Your task to perform on an android device: empty trash in google photos Image 0: 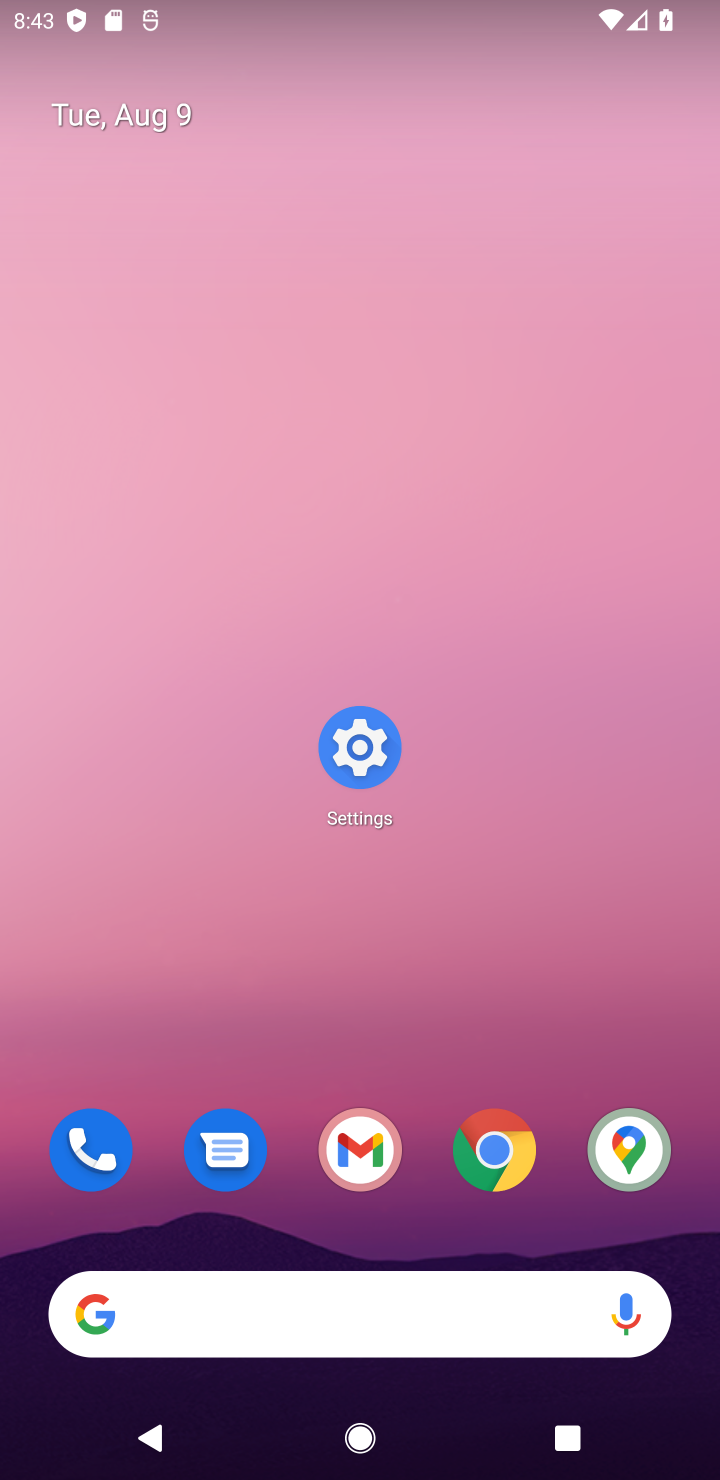
Step 0: press home button
Your task to perform on an android device: empty trash in google photos Image 1: 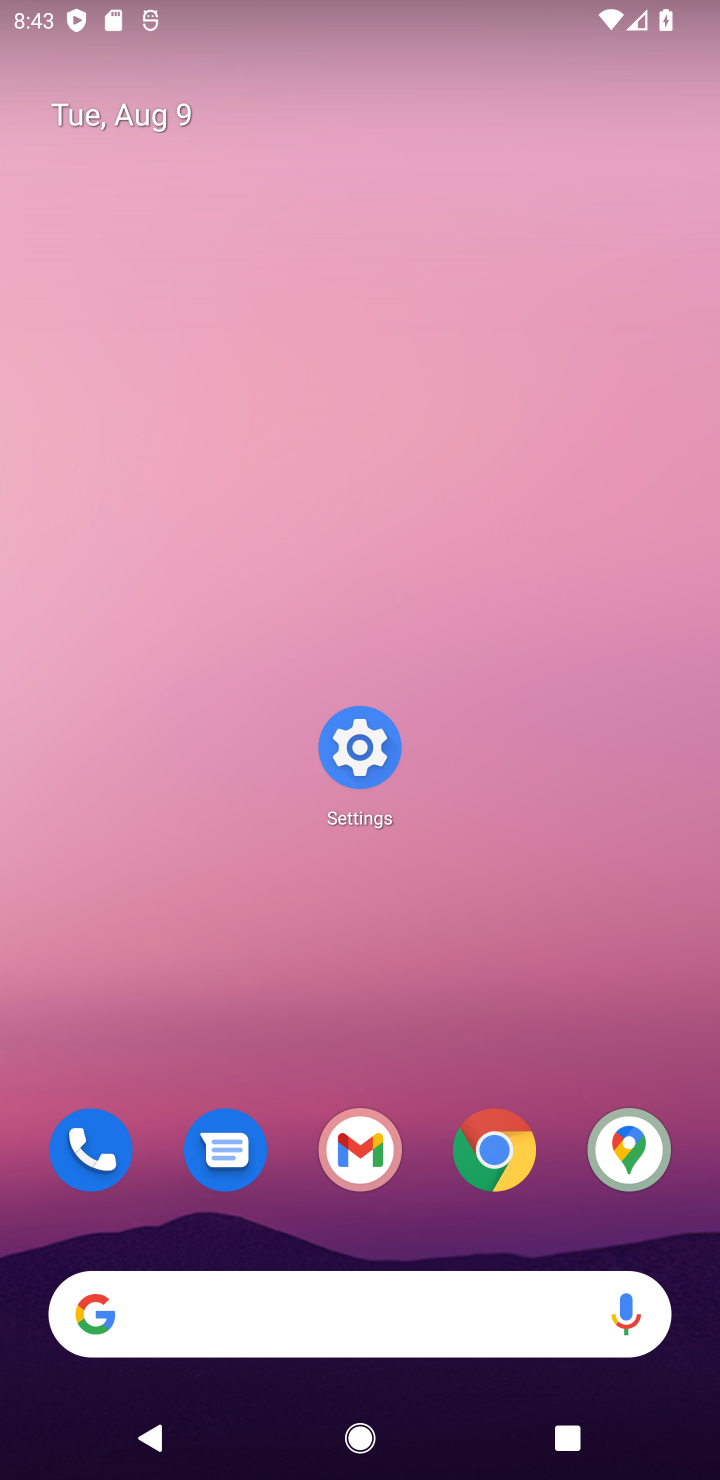
Step 1: drag from (428, 1144) to (596, 206)
Your task to perform on an android device: empty trash in google photos Image 2: 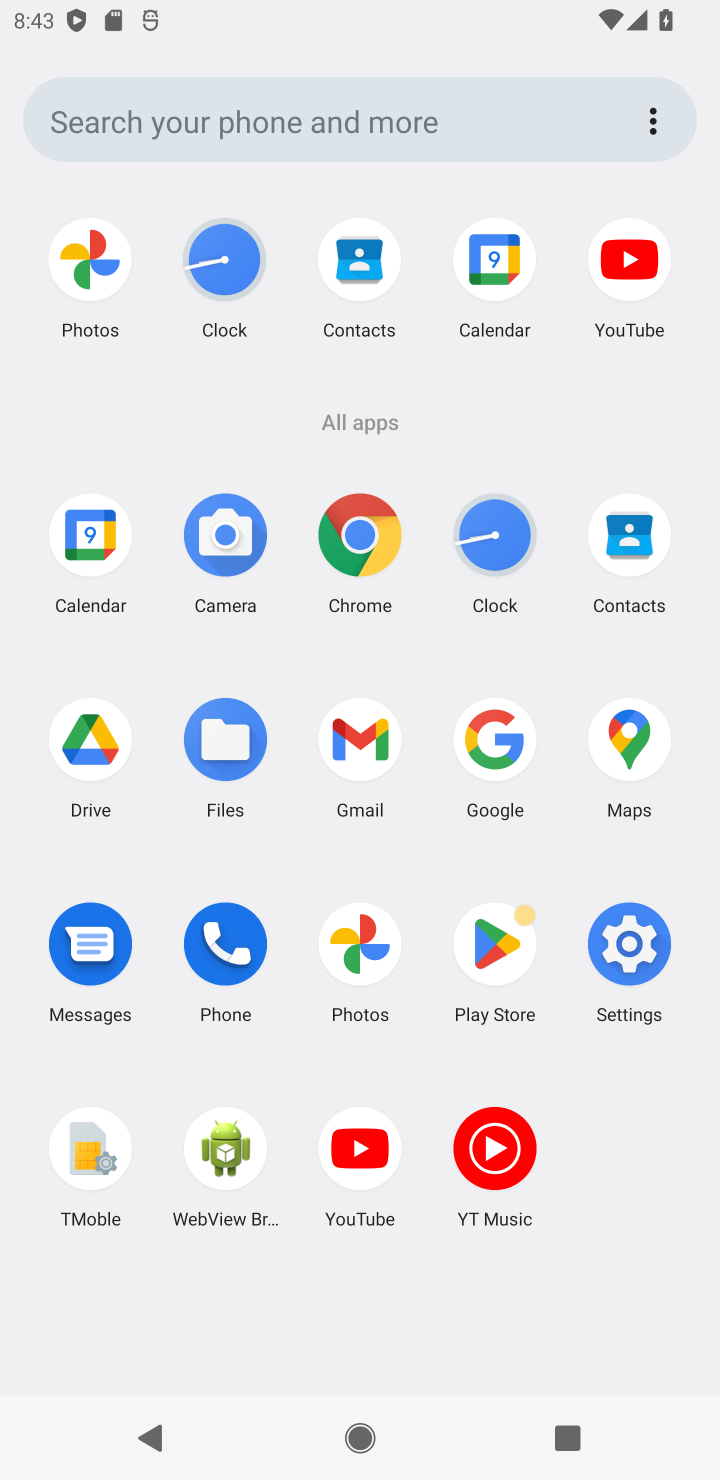
Step 2: click (354, 950)
Your task to perform on an android device: empty trash in google photos Image 3: 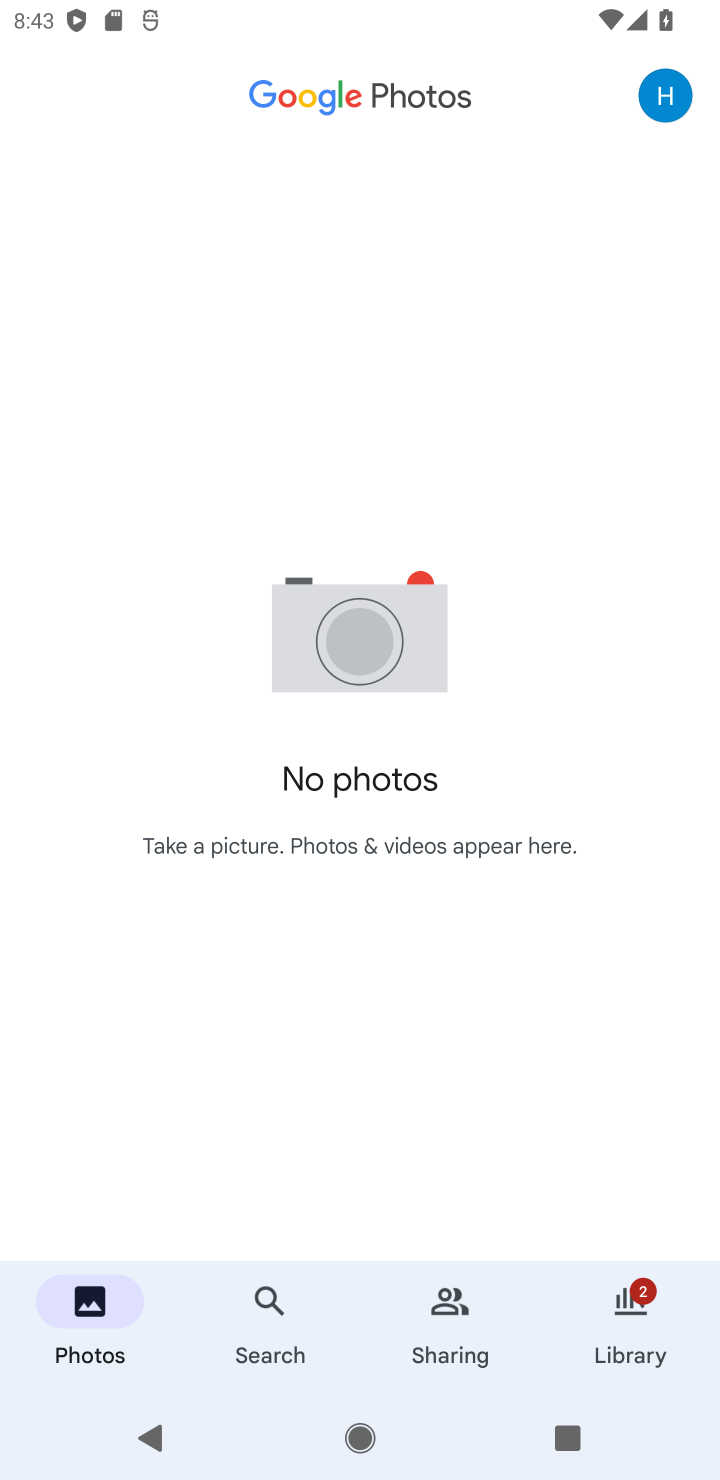
Step 3: click (640, 1322)
Your task to perform on an android device: empty trash in google photos Image 4: 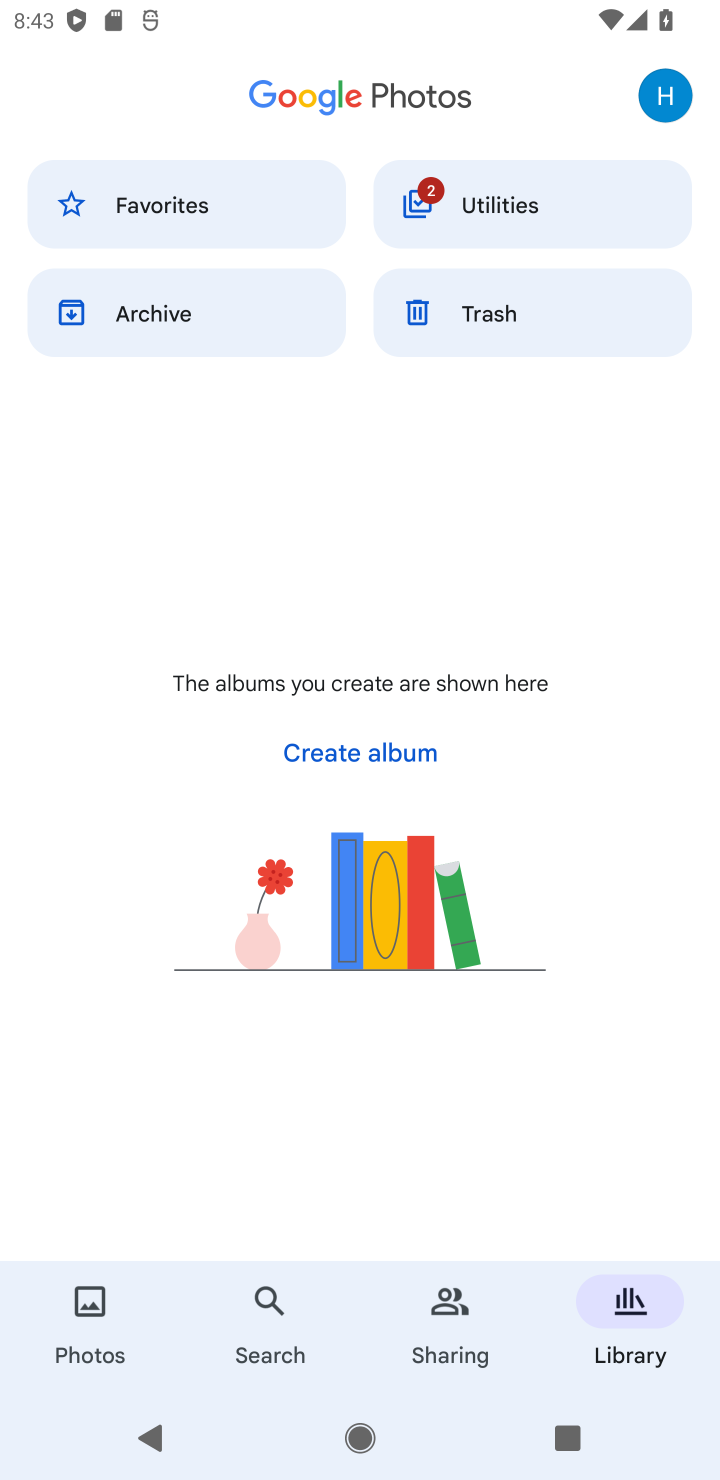
Step 4: click (533, 301)
Your task to perform on an android device: empty trash in google photos Image 5: 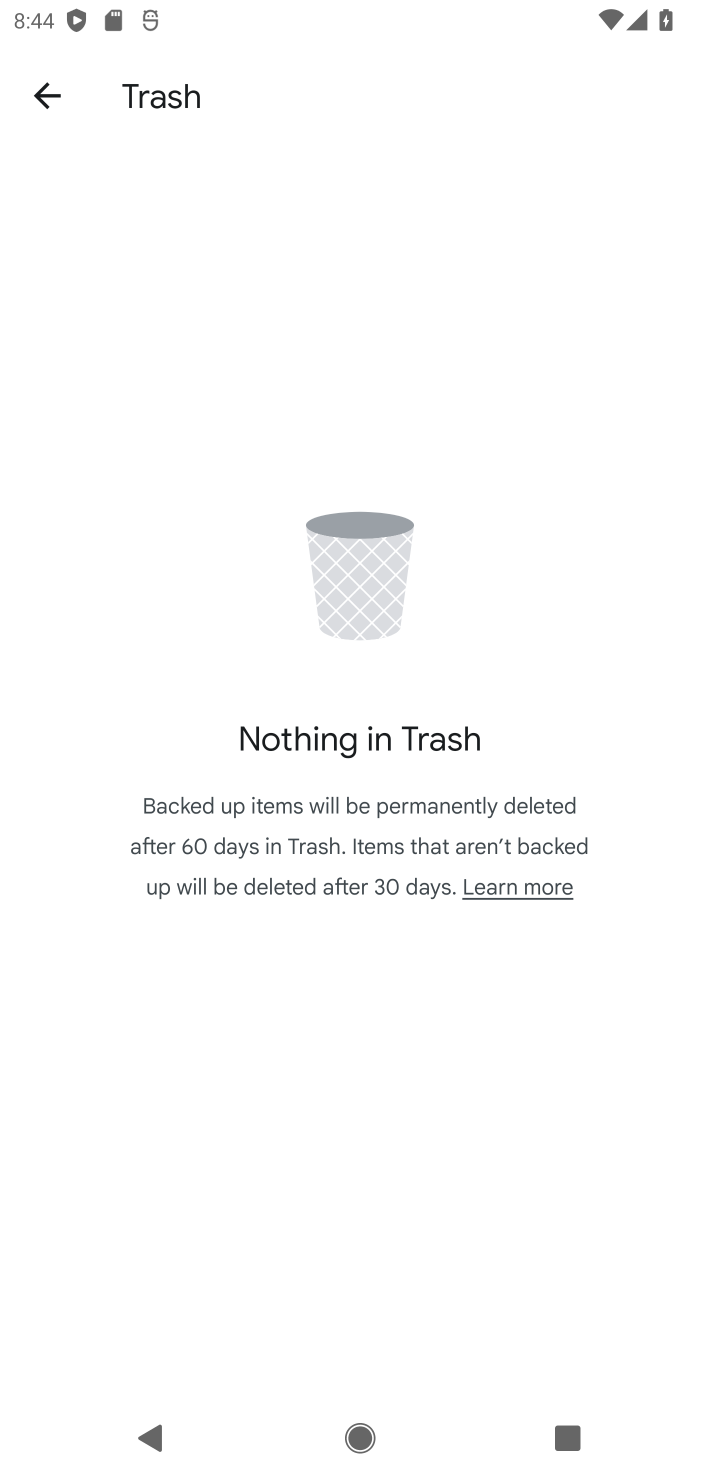
Step 5: task complete